Your task to perform on an android device: Open settings on Google Maps Image 0: 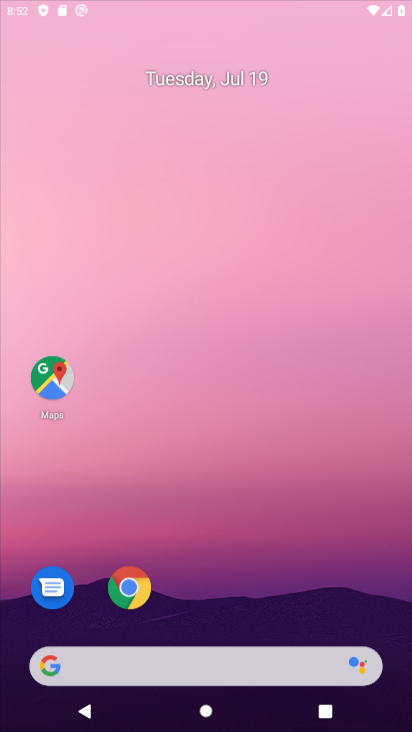
Step 0: click (232, 86)
Your task to perform on an android device: Open settings on Google Maps Image 1: 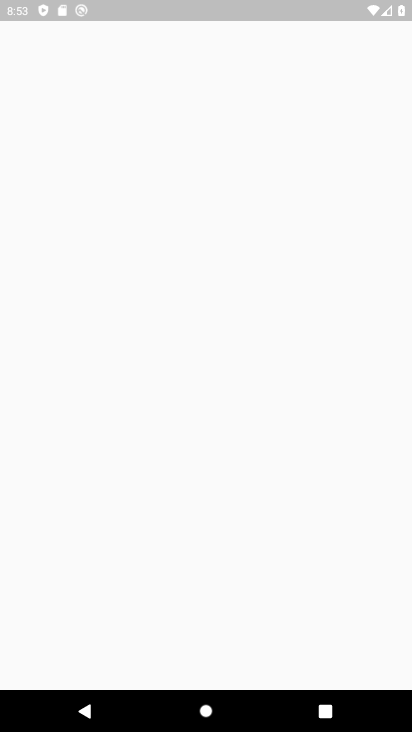
Step 1: press home button
Your task to perform on an android device: Open settings on Google Maps Image 2: 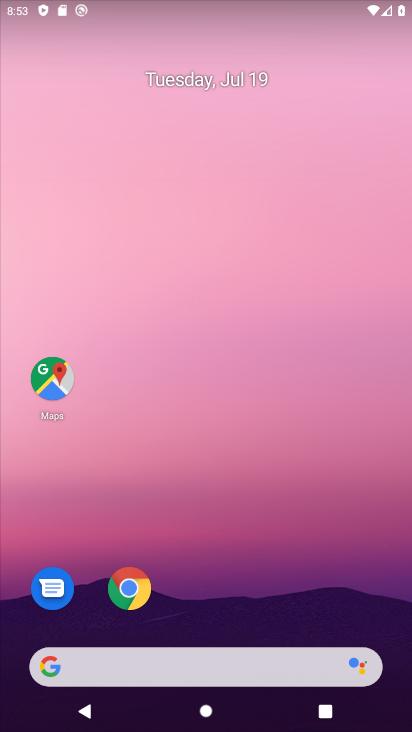
Step 2: drag from (295, 542) to (199, 2)
Your task to perform on an android device: Open settings on Google Maps Image 3: 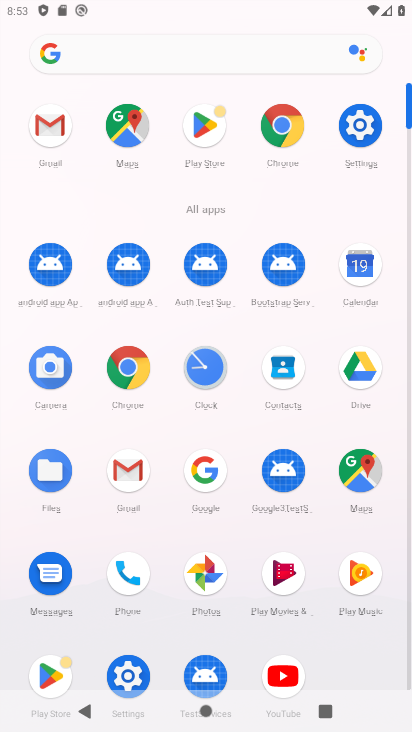
Step 3: click (365, 469)
Your task to perform on an android device: Open settings on Google Maps Image 4: 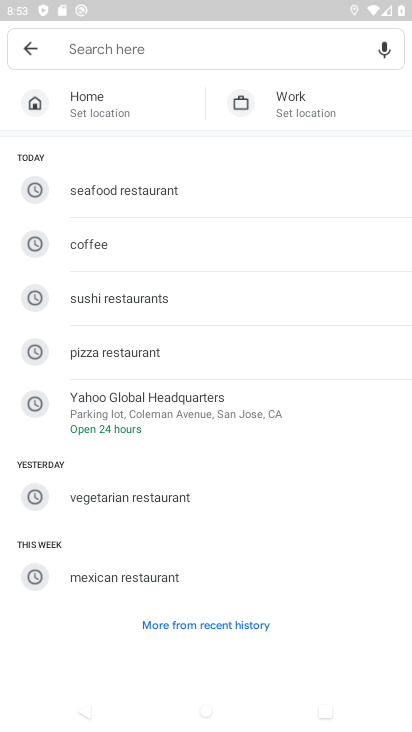
Step 4: click (38, 58)
Your task to perform on an android device: Open settings on Google Maps Image 5: 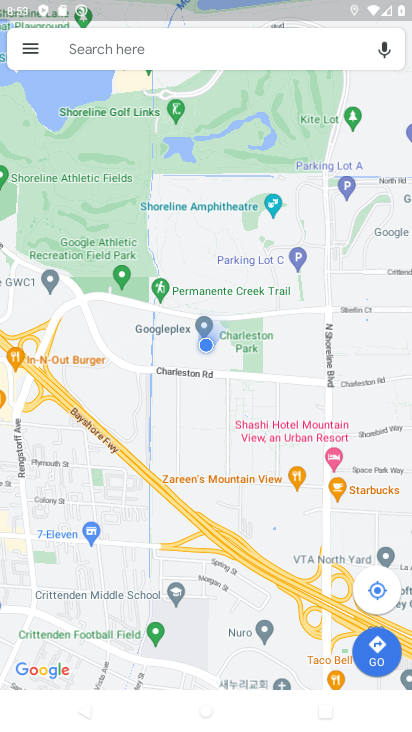
Step 5: click (38, 56)
Your task to perform on an android device: Open settings on Google Maps Image 6: 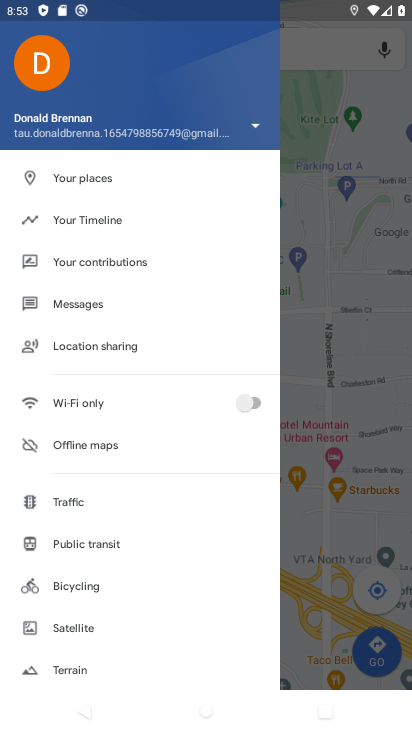
Step 6: drag from (79, 622) to (36, 229)
Your task to perform on an android device: Open settings on Google Maps Image 7: 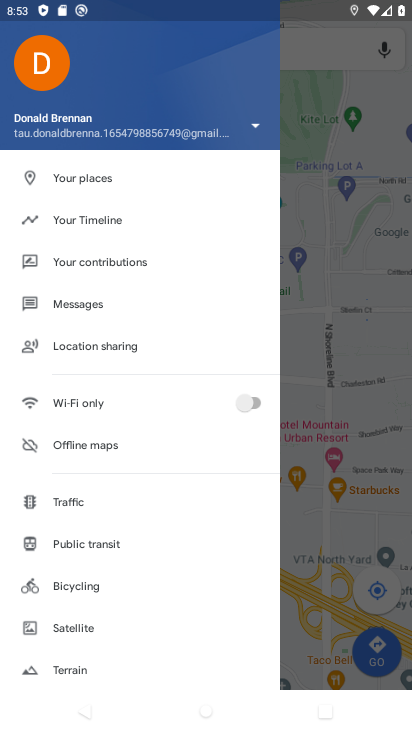
Step 7: drag from (103, 635) to (190, 217)
Your task to perform on an android device: Open settings on Google Maps Image 8: 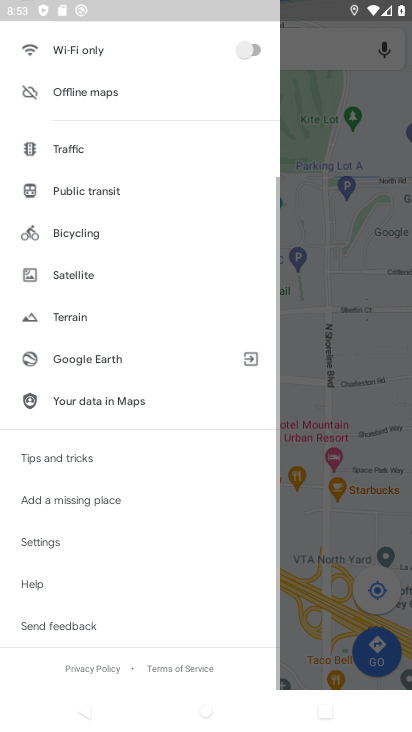
Step 8: click (61, 547)
Your task to perform on an android device: Open settings on Google Maps Image 9: 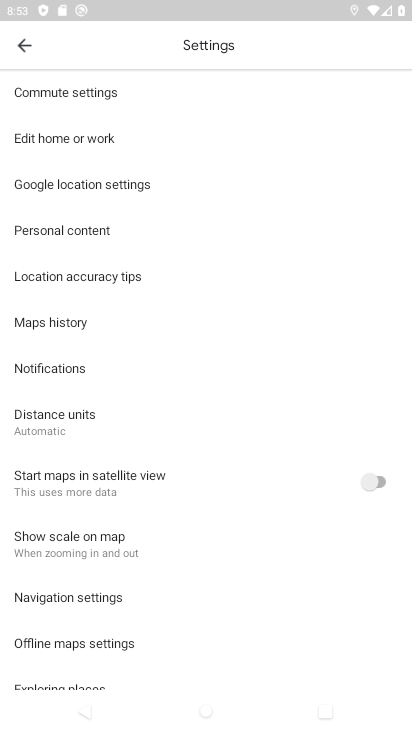
Step 9: task complete